Your task to perform on an android device: Go to Maps Image 0: 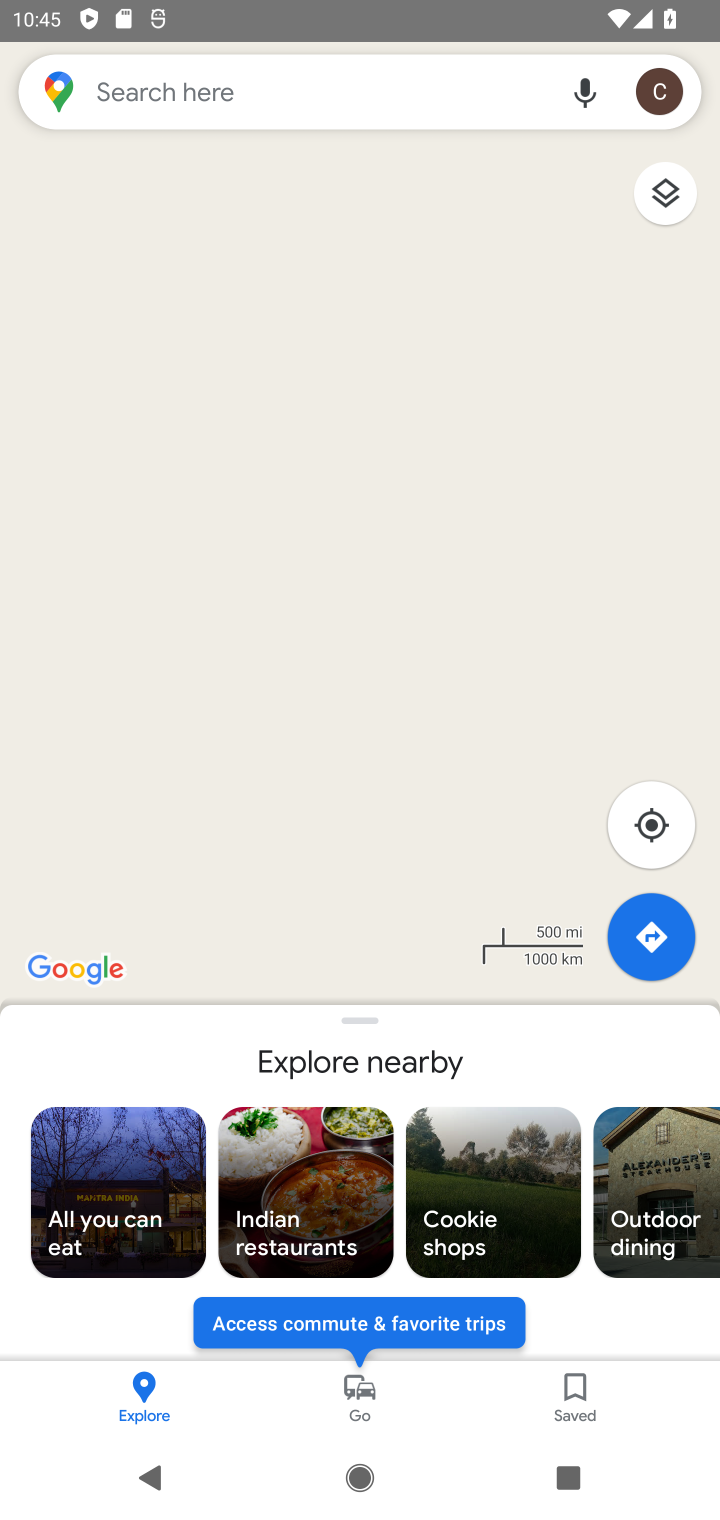
Step 0: press home button
Your task to perform on an android device: Go to Maps Image 1: 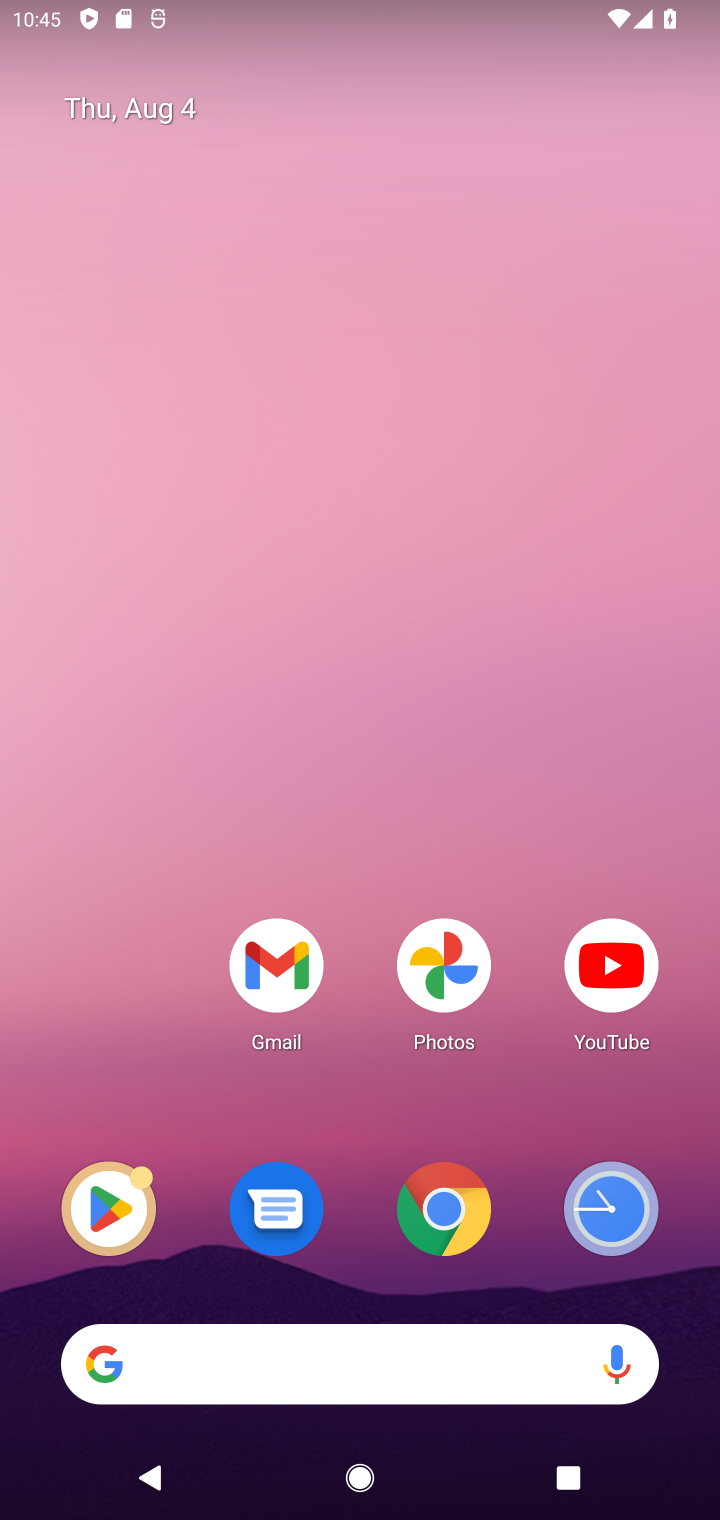
Step 1: drag from (122, 1054) to (302, 0)
Your task to perform on an android device: Go to Maps Image 2: 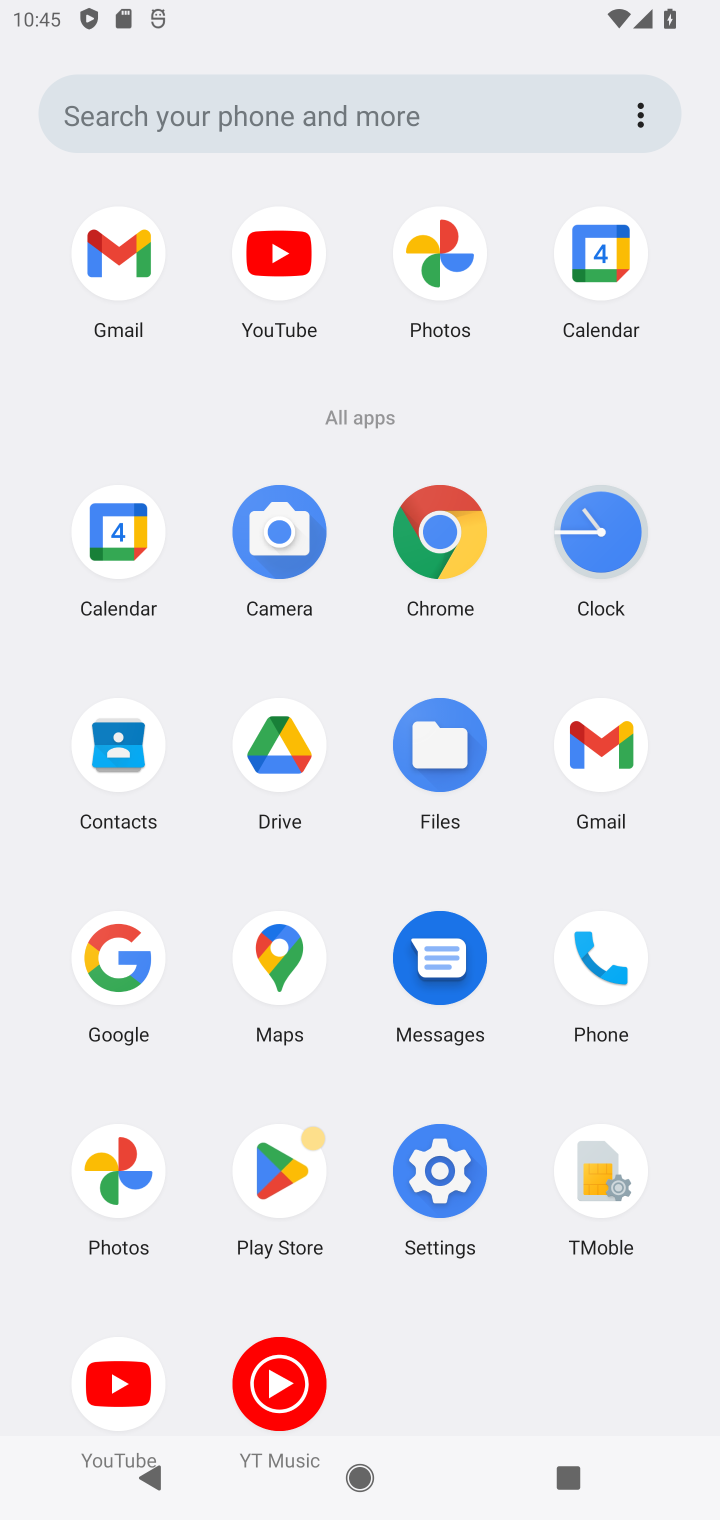
Step 2: click (287, 964)
Your task to perform on an android device: Go to Maps Image 3: 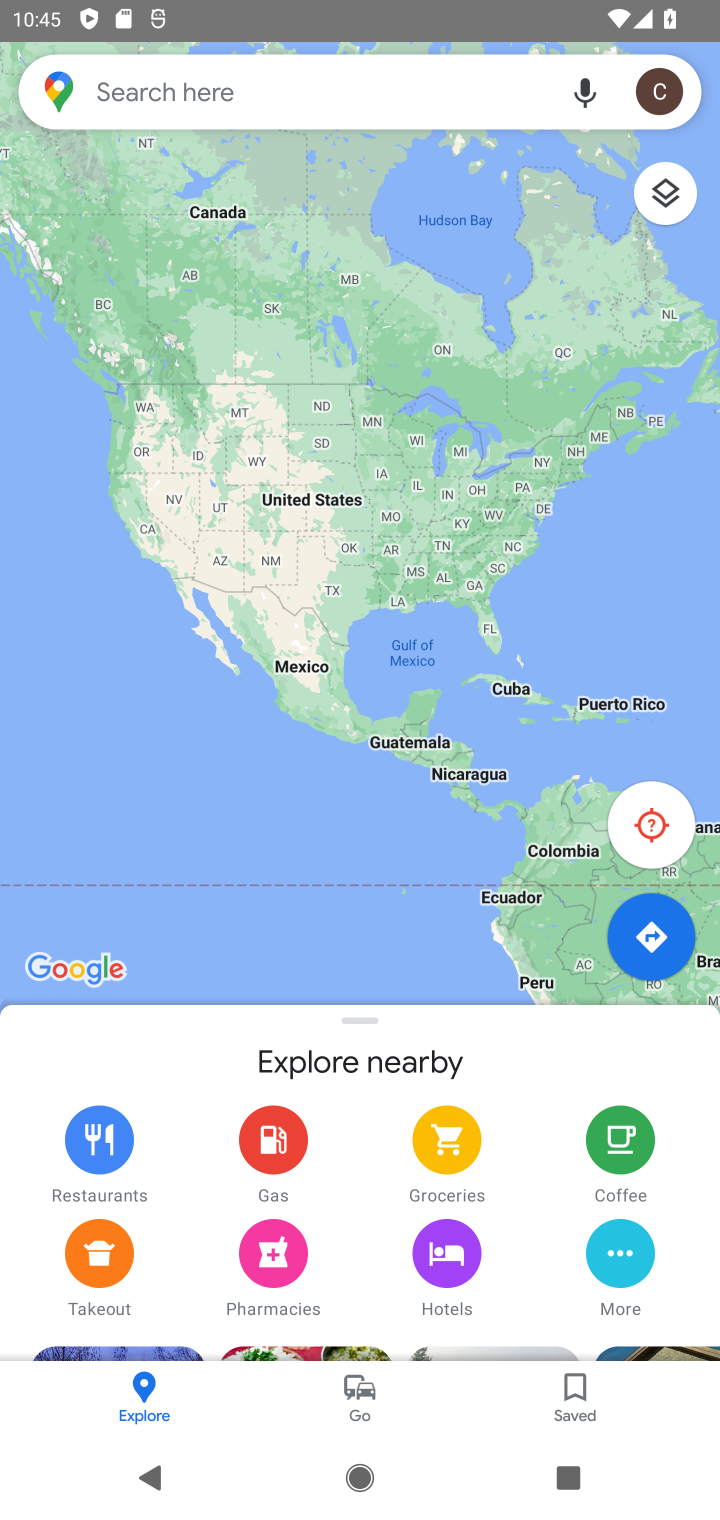
Step 3: task complete